Your task to perform on an android device: Open Wikipedia Image 0: 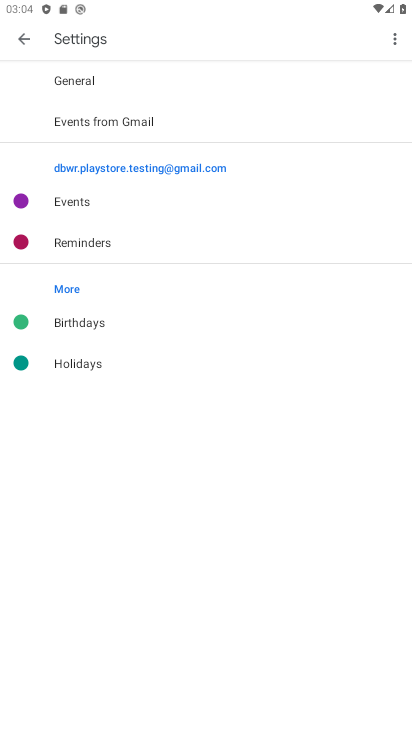
Step 0: press home button
Your task to perform on an android device: Open Wikipedia Image 1: 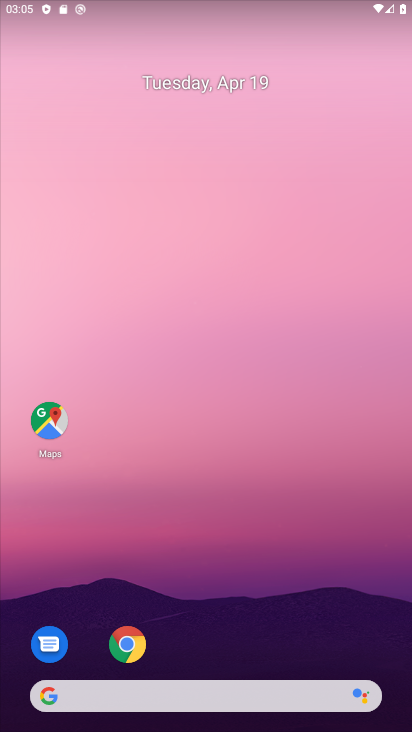
Step 1: drag from (324, 636) to (294, 271)
Your task to perform on an android device: Open Wikipedia Image 2: 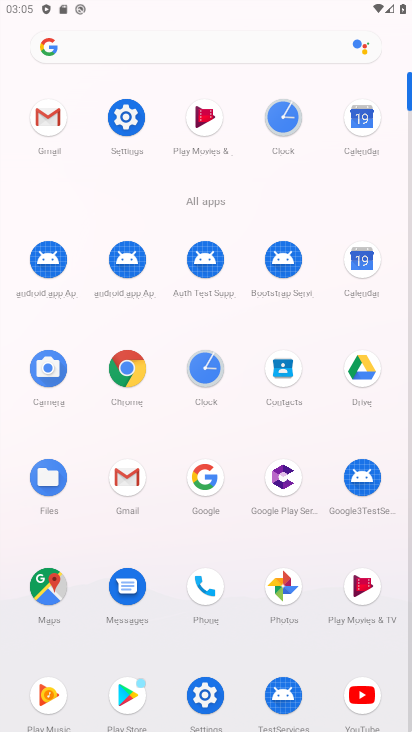
Step 2: click (123, 364)
Your task to perform on an android device: Open Wikipedia Image 3: 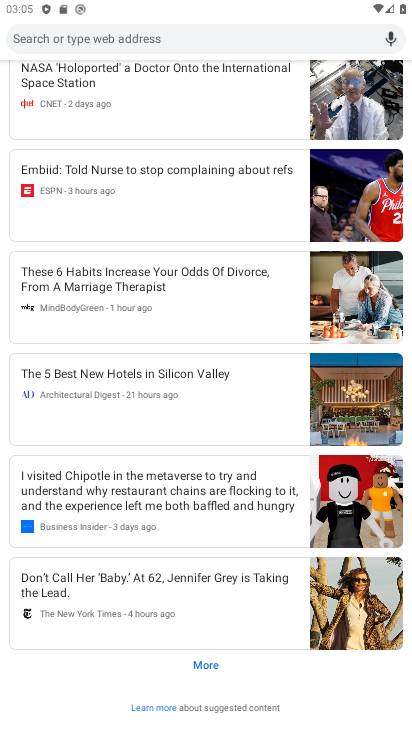
Step 3: drag from (255, 232) to (236, 490)
Your task to perform on an android device: Open Wikipedia Image 4: 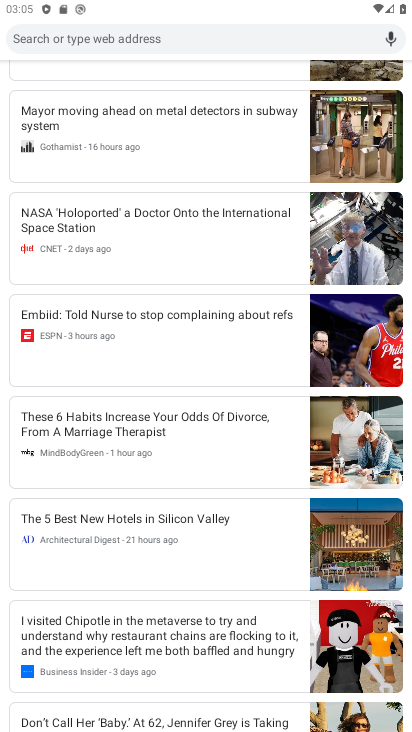
Step 4: drag from (227, 267) to (210, 520)
Your task to perform on an android device: Open Wikipedia Image 5: 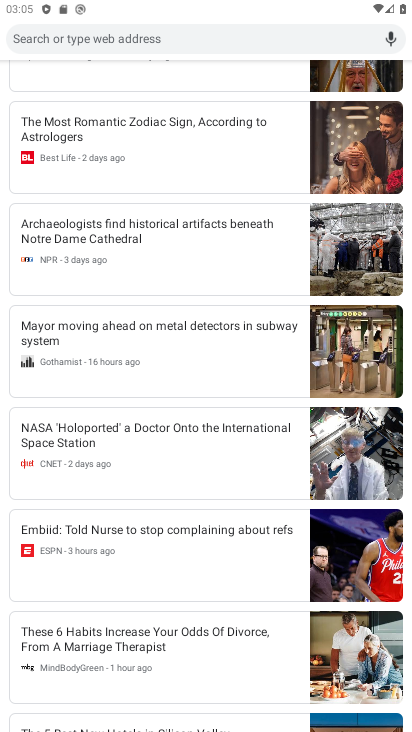
Step 5: drag from (213, 242) to (208, 521)
Your task to perform on an android device: Open Wikipedia Image 6: 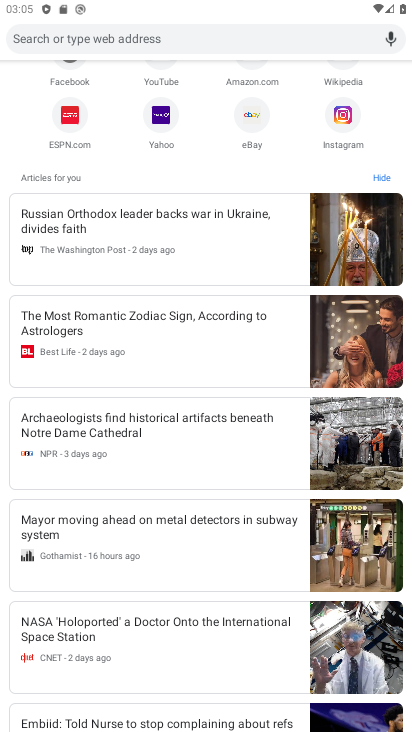
Step 6: drag from (228, 262) to (211, 546)
Your task to perform on an android device: Open Wikipedia Image 7: 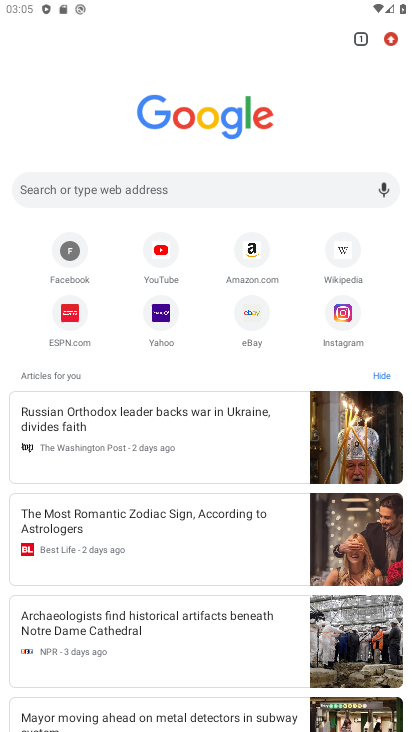
Step 7: click (342, 244)
Your task to perform on an android device: Open Wikipedia Image 8: 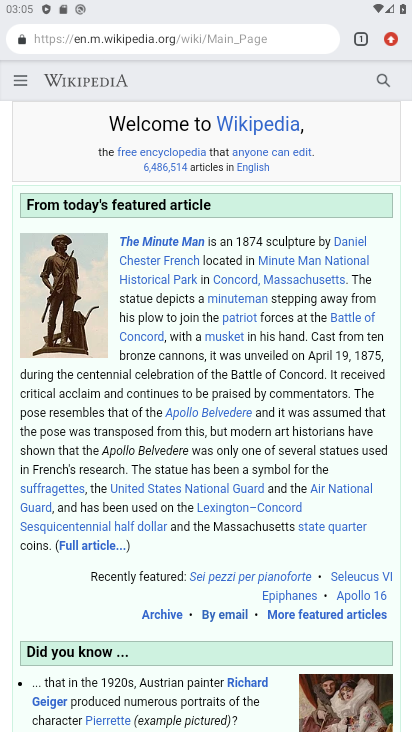
Step 8: task complete